Your task to perform on an android device: What's the weather? Image 0: 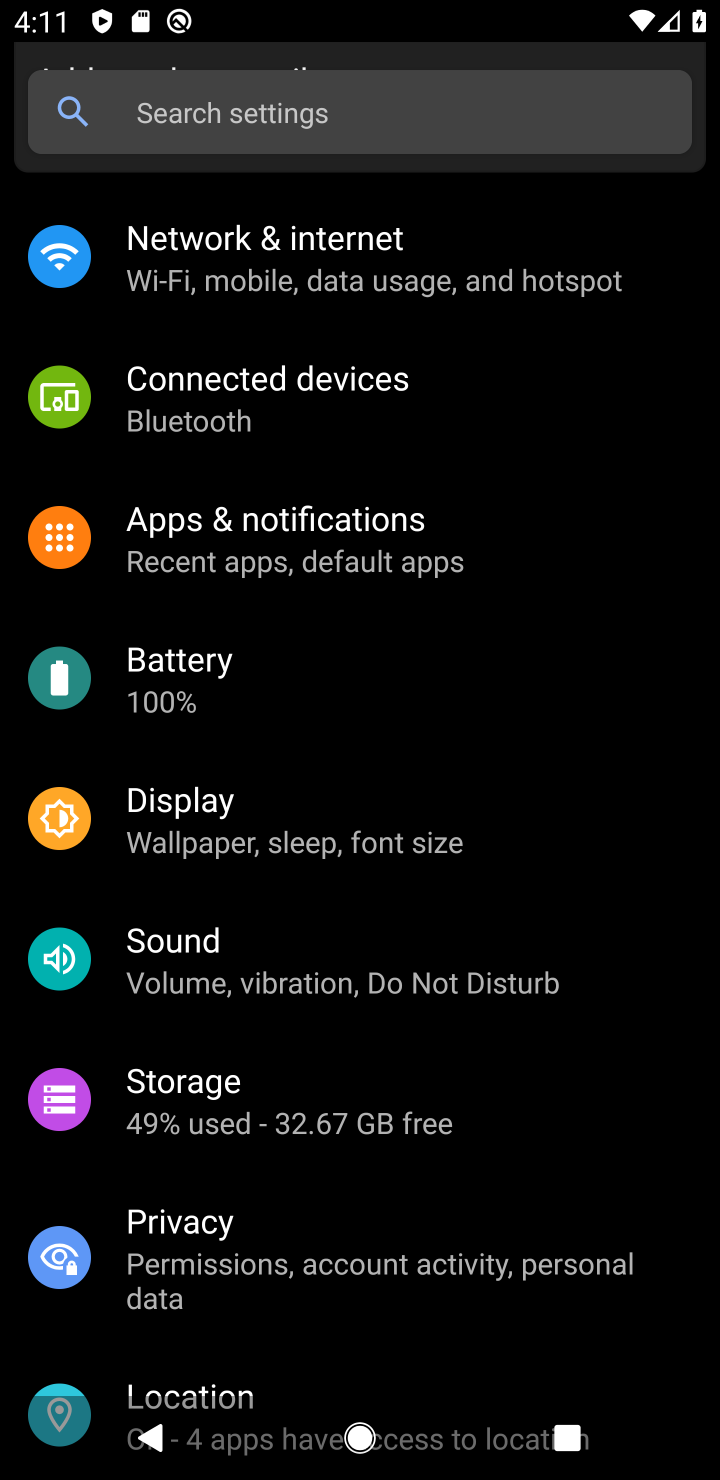
Step 0: press home button
Your task to perform on an android device: What's the weather? Image 1: 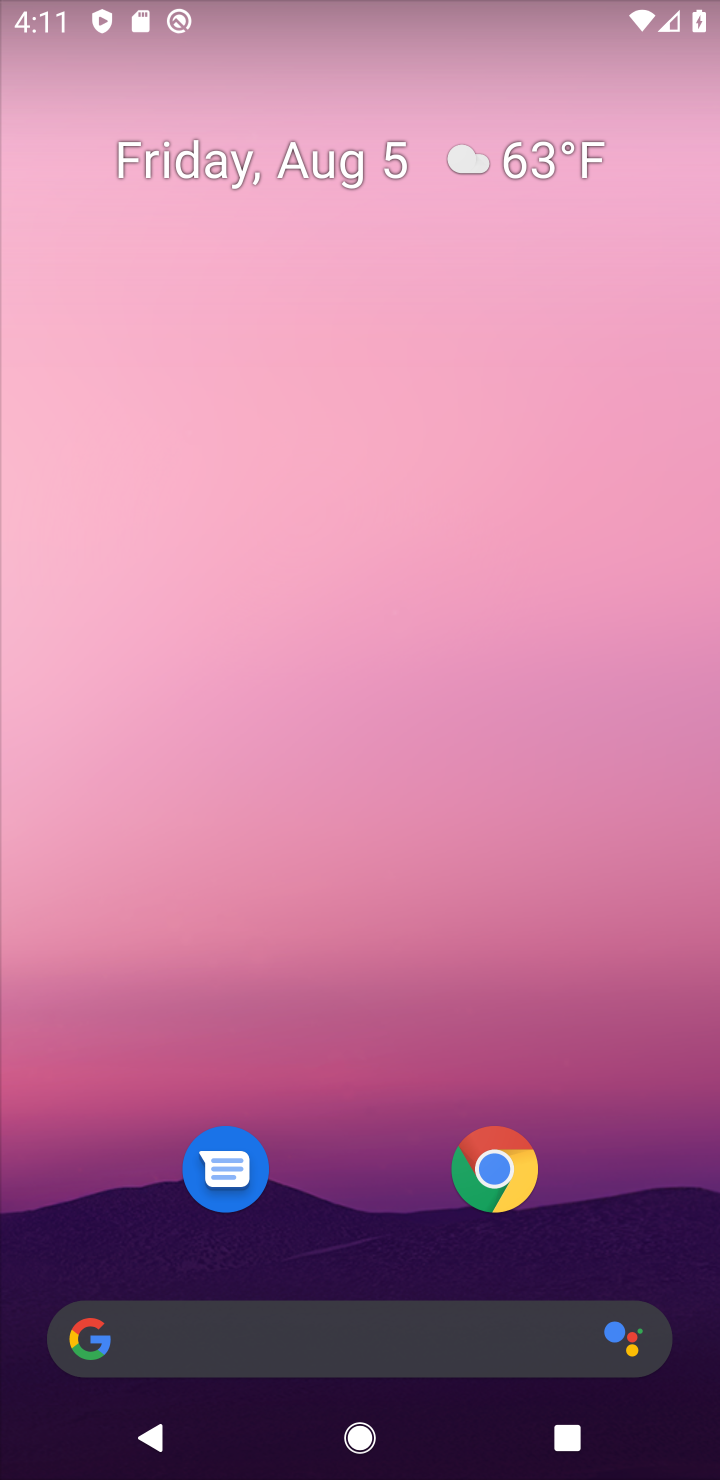
Step 1: drag from (260, 1292) to (276, 326)
Your task to perform on an android device: What's the weather? Image 2: 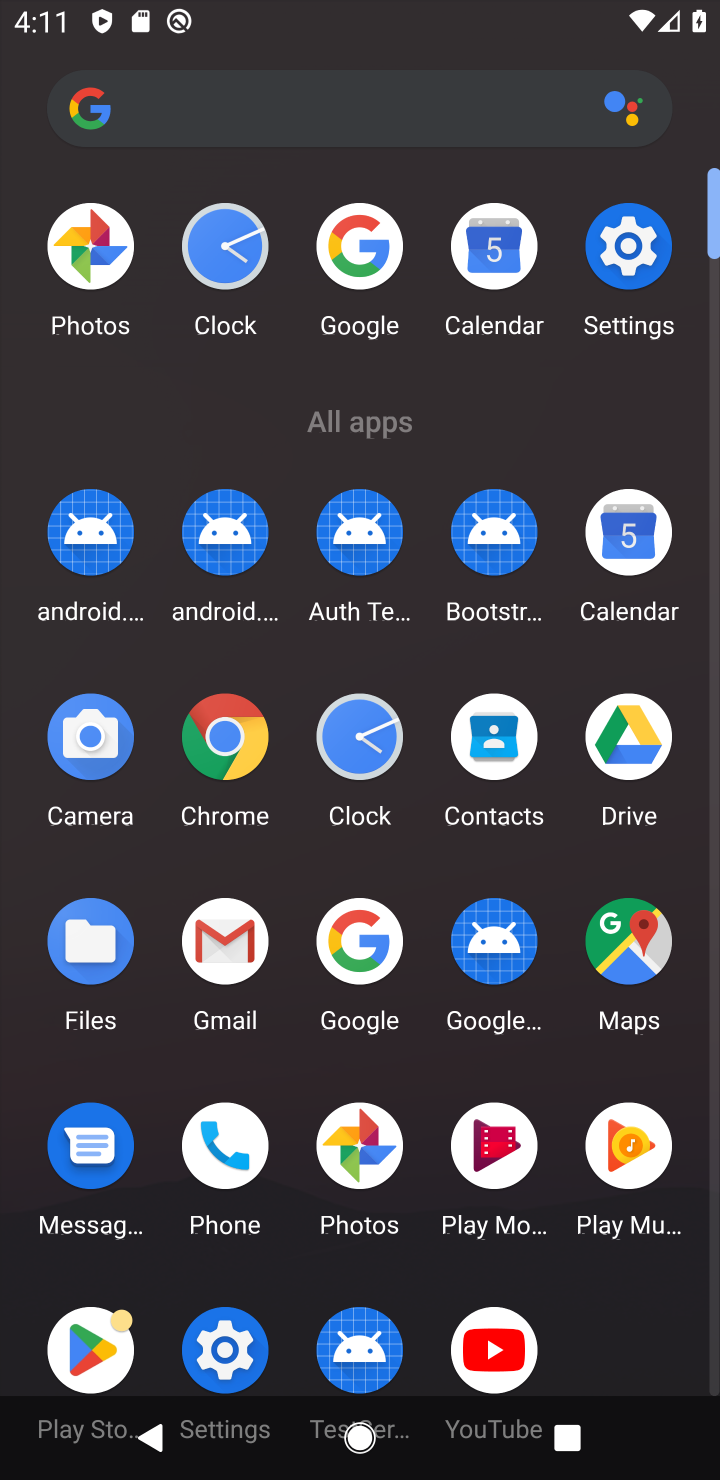
Step 2: click (339, 940)
Your task to perform on an android device: What's the weather? Image 3: 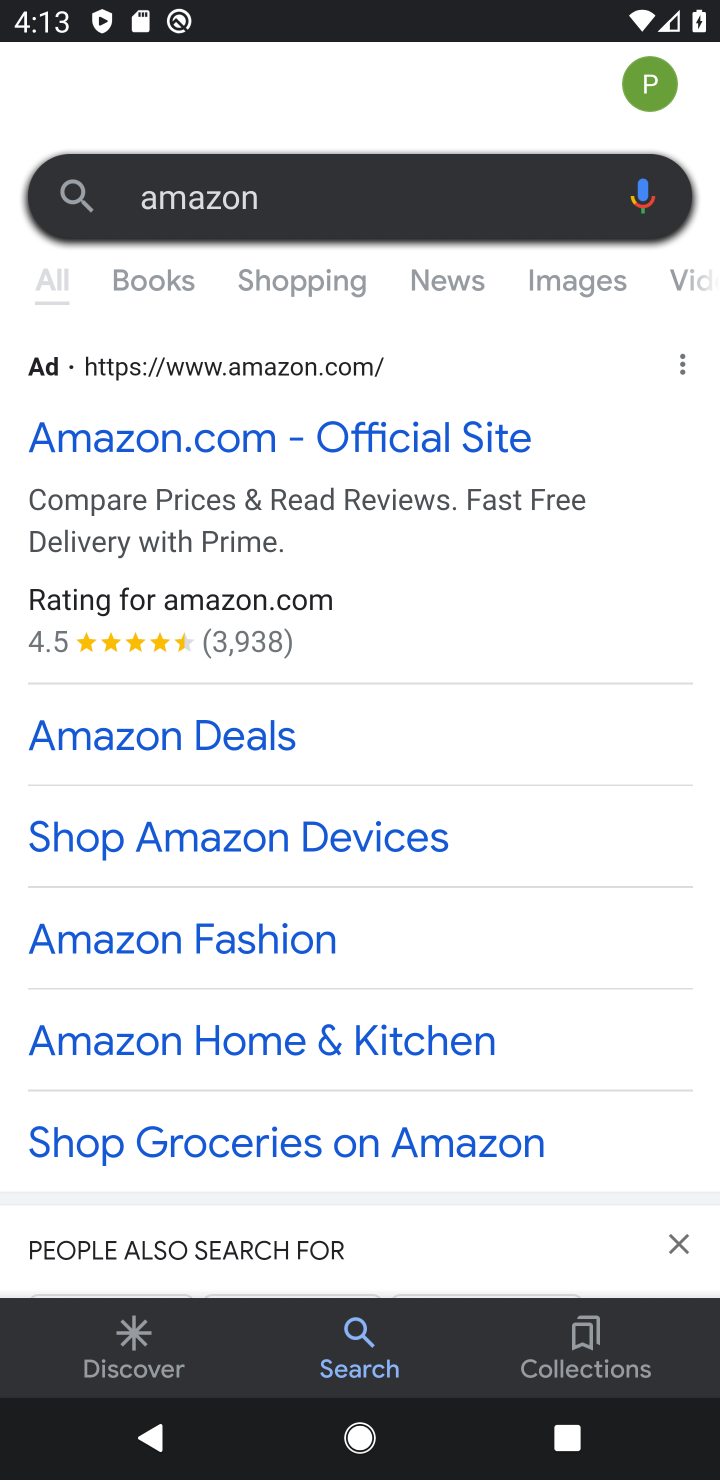
Step 3: click (258, 207)
Your task to perform on an android device: What's the weather? Image 4: 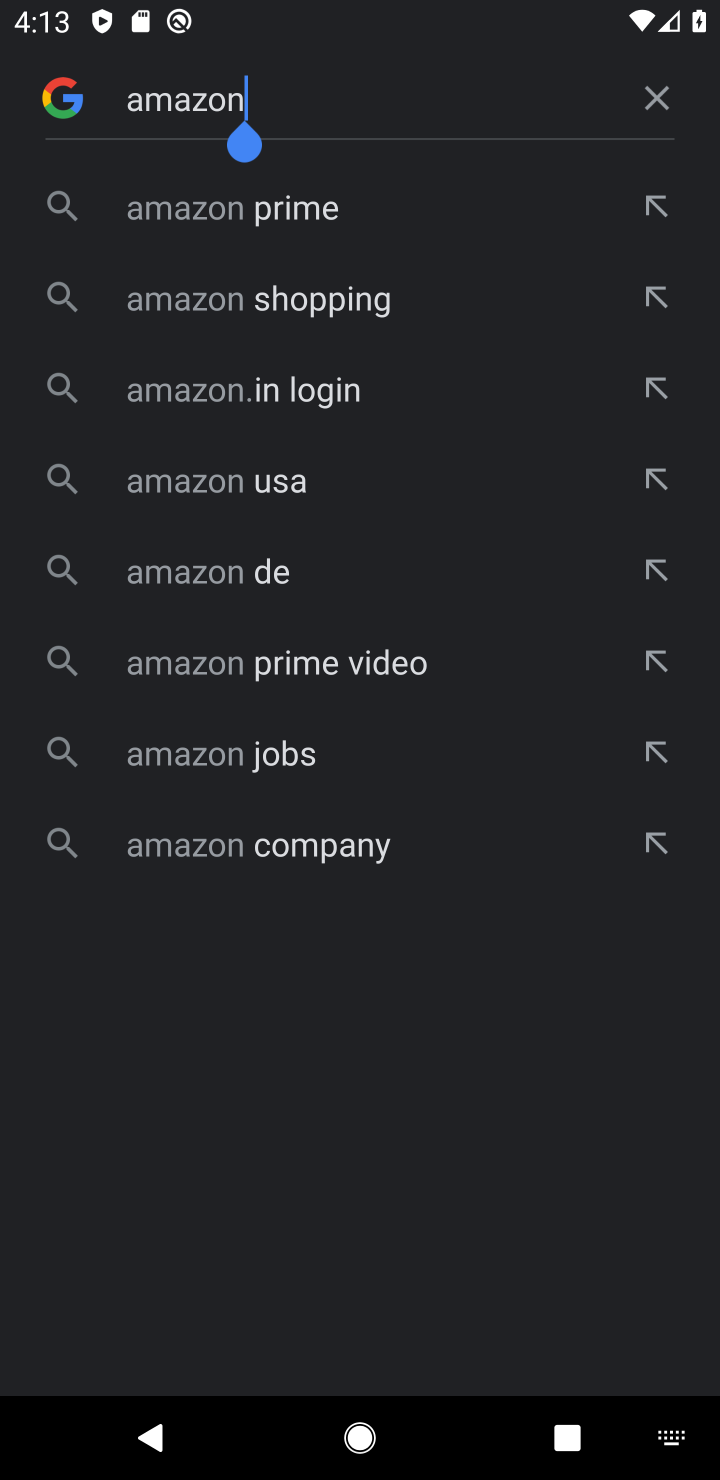
Step 4: click (658, 97)
Your task to perform on an android device: What's the weather? Image 5: 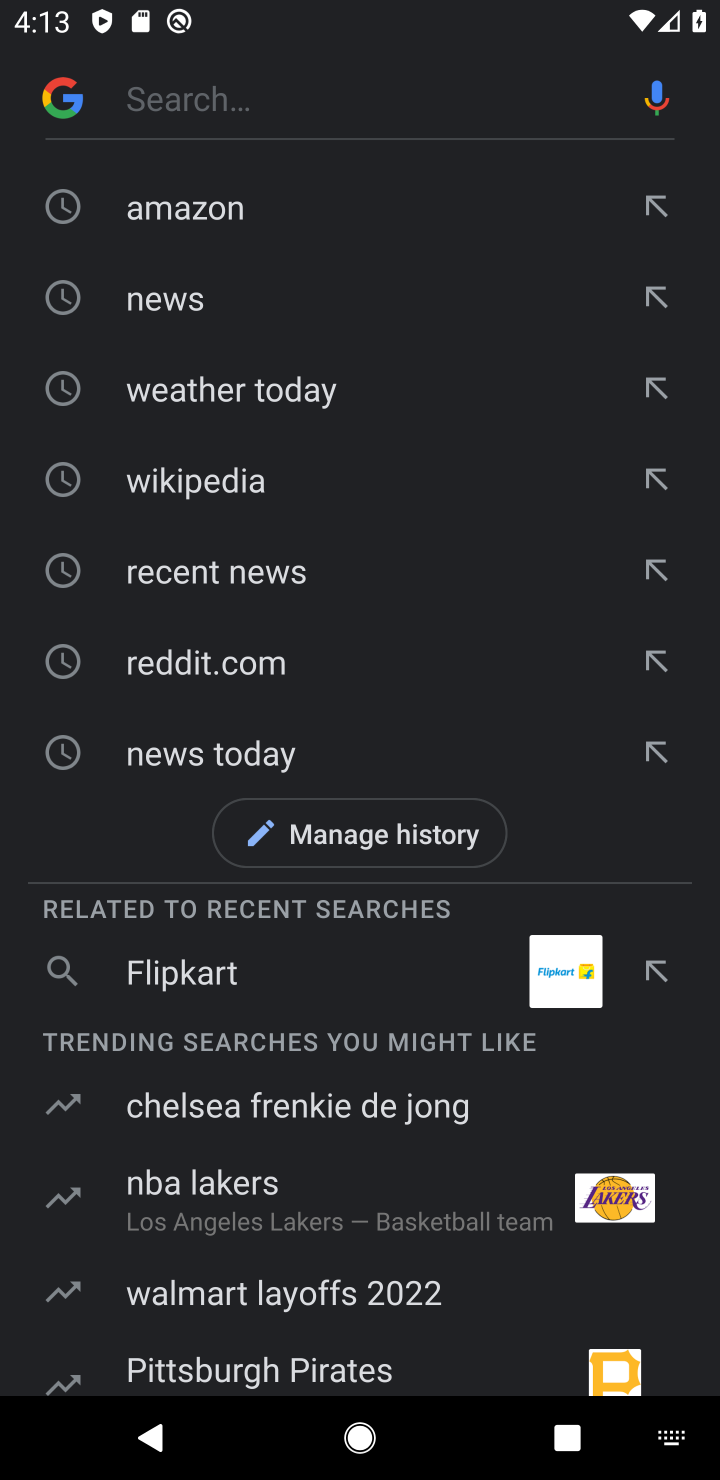
Step 5: click (221, 391)
Your task to perform on an android device: What's the weather? Image 6: 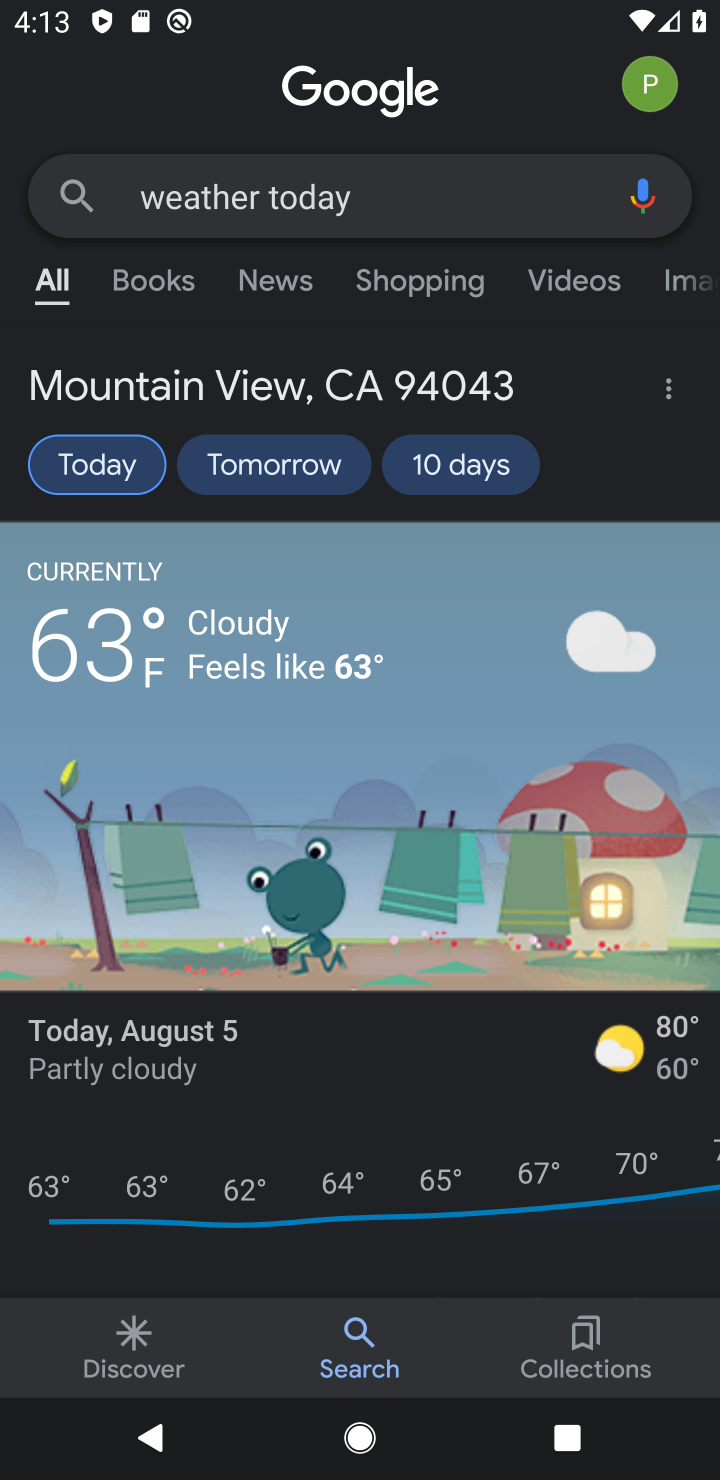
Step 6: task complete